Your task to perform on an android device: Open Google Maps Image 0: 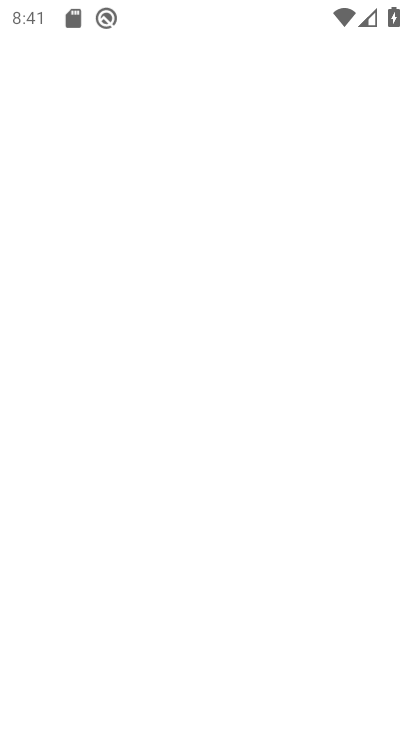
Step 0: press home button
Your task to perform on an android device: Open Google Maps Image 1: 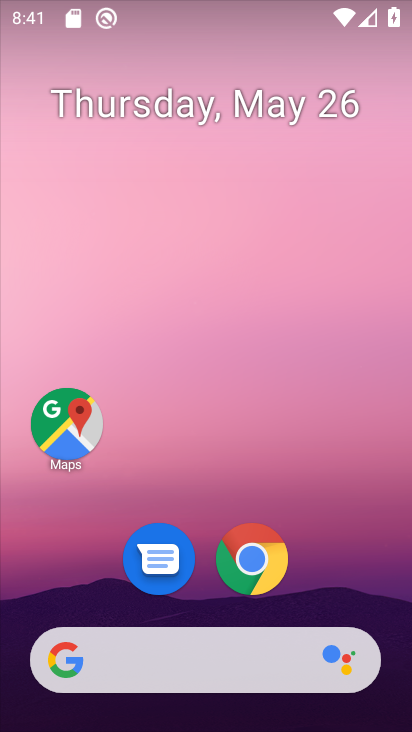
Step 1: click (66, 431)
Your task to perform on an android device: Open Google Maps Image 2: 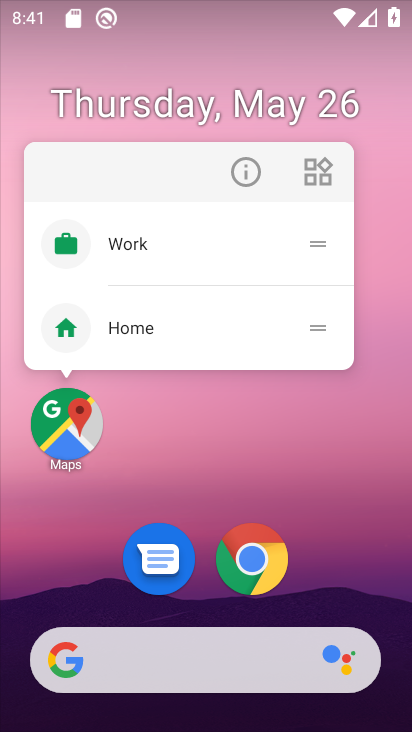
Step 2: click (67, 431)
Your task to perform on an android device: Open Google Maps Image 3: 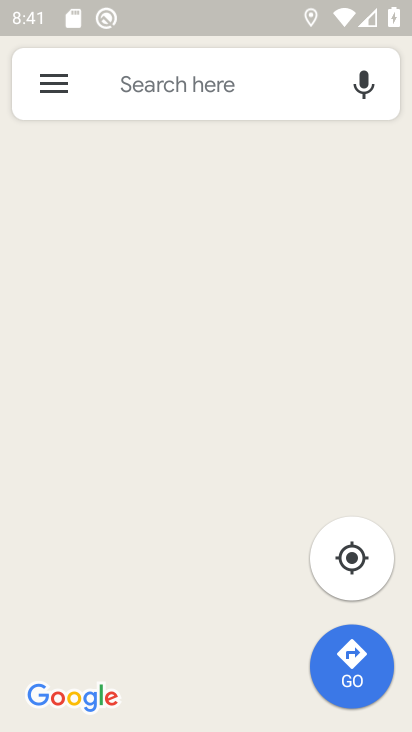
Step 3: click (193, 90)
Your task to perform on an android device: Open Google Maps Image 4: 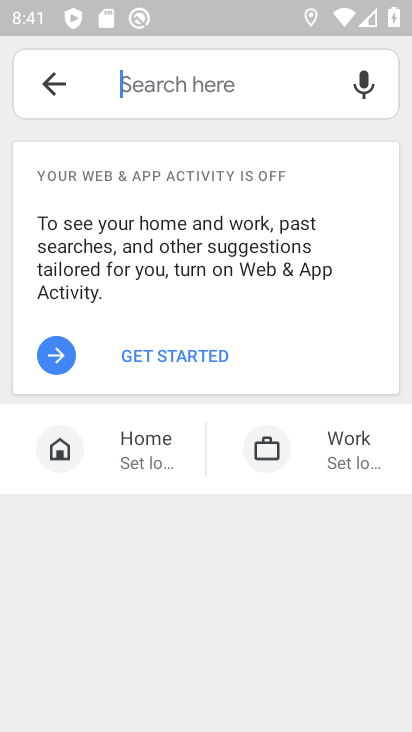
Step 4: click (162, 363)
Your task to perform on an android device: Open Google Maps Image 5: 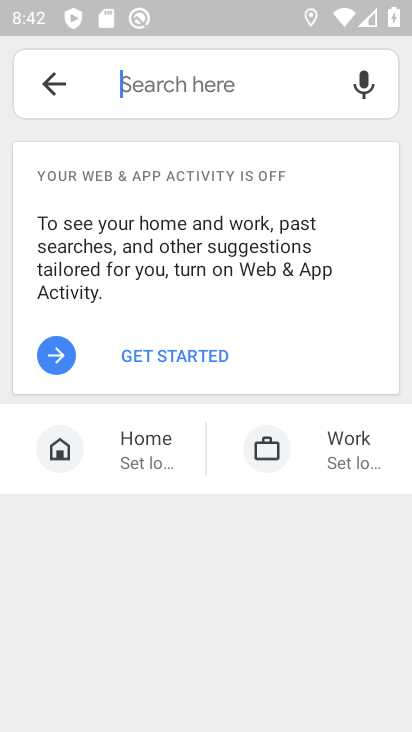
Step 5: click (56, 361)
Your task to perform on an android device: Open Google Maps Image 6: 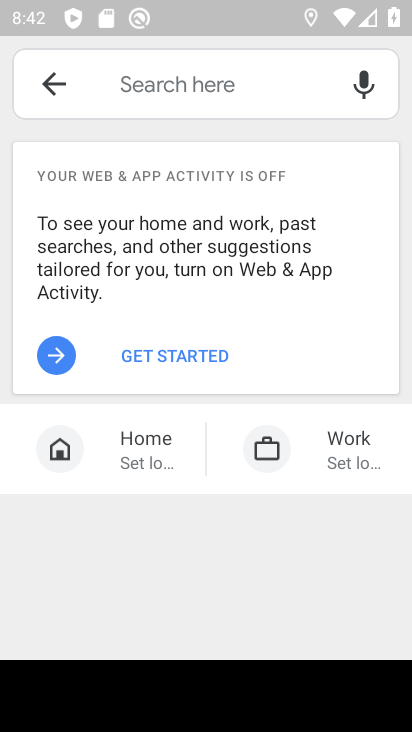
Step 6: click (176, 347)
Your task to perform on an android device: Open Google Maps Image 7: 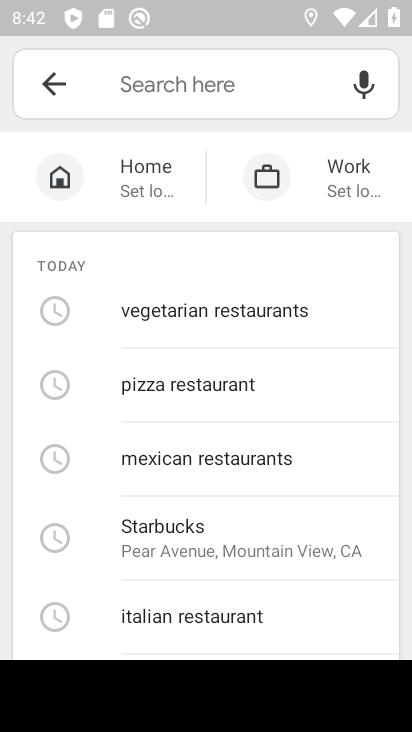
Step 7: press home button
Your task to perform on an android device: Open Google Maps Image 8: 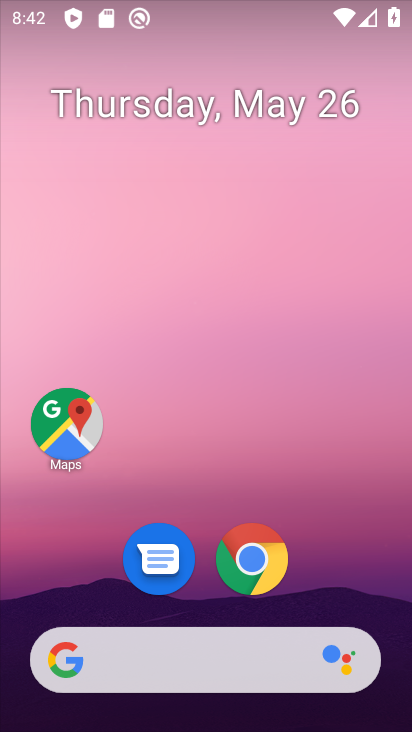
Step 8: click (72, 425)
Your task to perform on an android device: Open Google Maps Image 9: 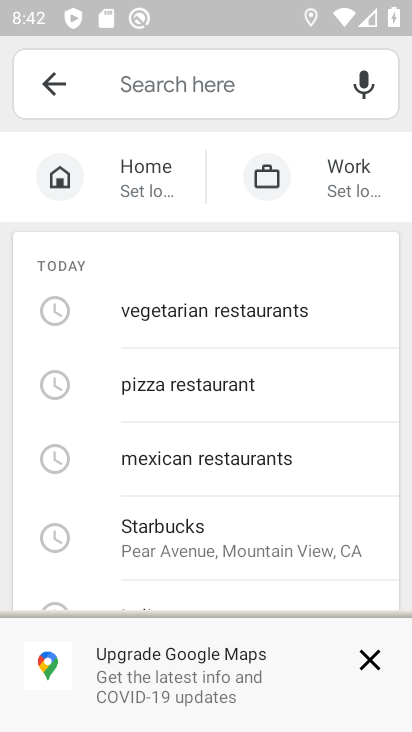
Step 9: task complete